Your task to perform on an android device: check out phone information Image 0: 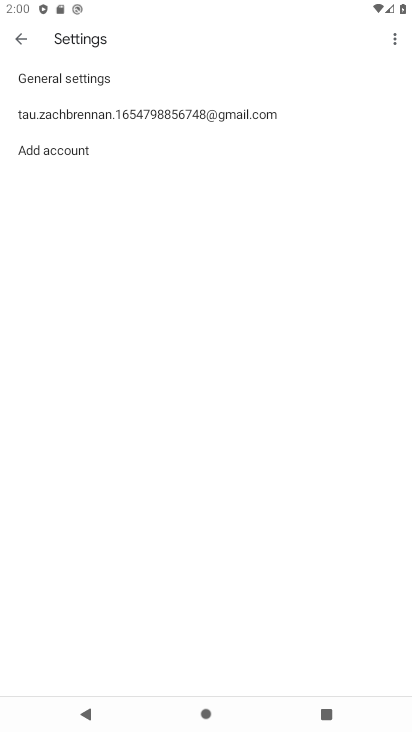
Step 0: press home button
Your task to perform on an android device: check out phone information Image 1: 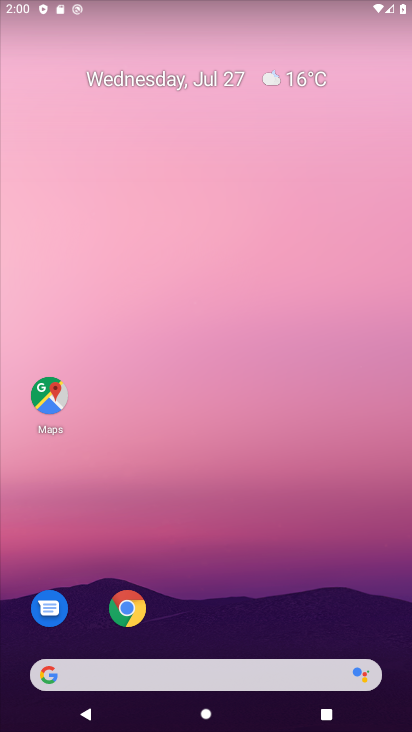
Step 1: drag from (230, 350) to (256, 213)
Your task to perform on an android device: check out phone information Image 2: 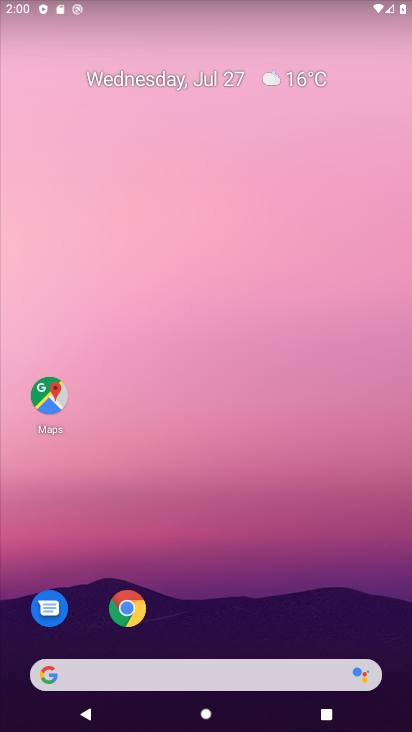
Step 2: drag from (203, 469) to (259, 114)
Your task to perform on an android device: check out phone information Image 3: 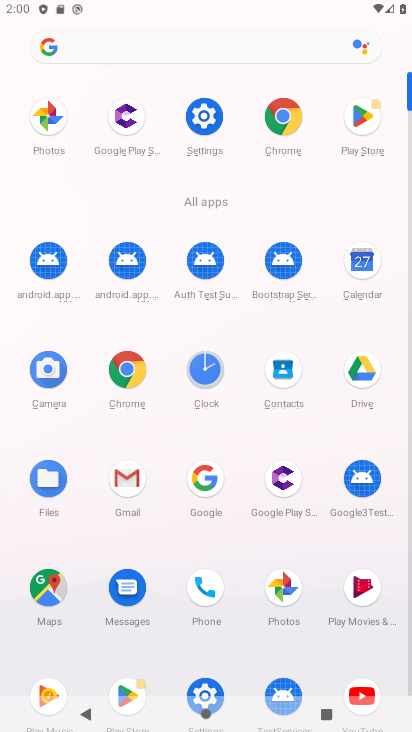
Step 3: click (205, 112)
Your task to perform on an android device: check out phone information Image 4: 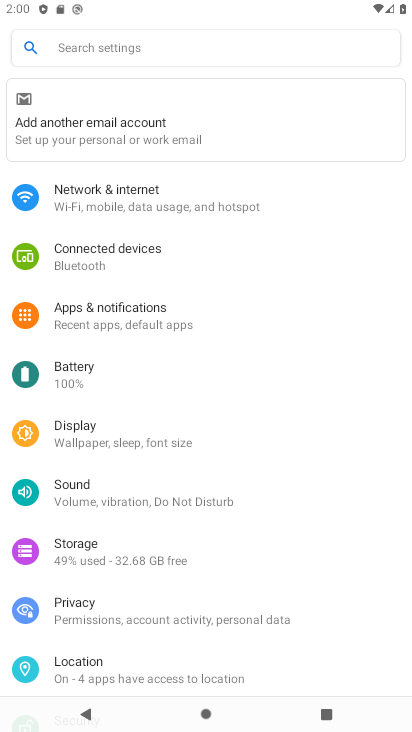
Step 4: drag from (134, 669) to (198, 262)
Your task to perform on an android device: check out phone information Image 5: 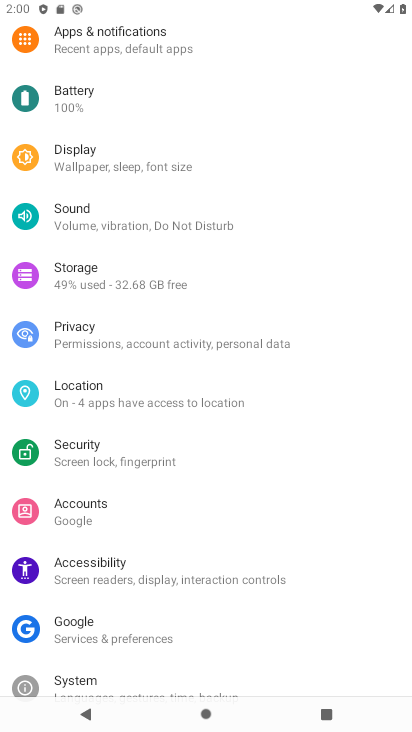
Step 5: drag from (211, 606) to (207, 225)
Your task to perform on an android device: check out phone information Image 6: 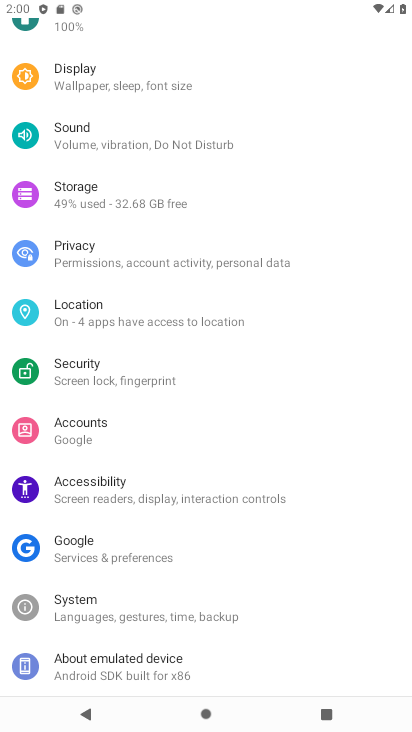
Step 6: click (109, 669)
Your task to perform on an android device: check out phone information Image 7: 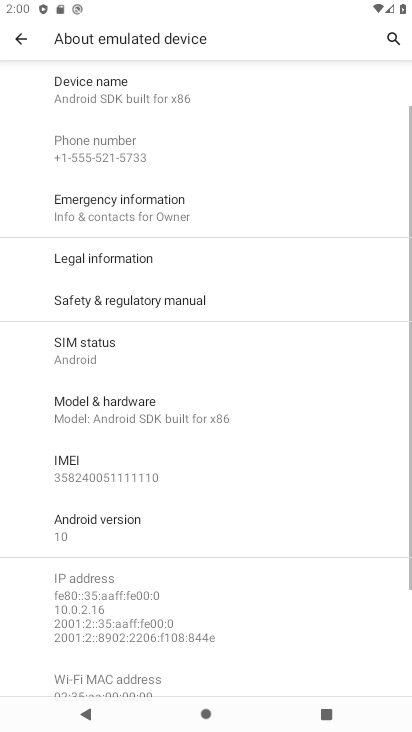
Step 7: task complete